Your task to perform on an android device: clear all cookies in the chrome app Image 0: 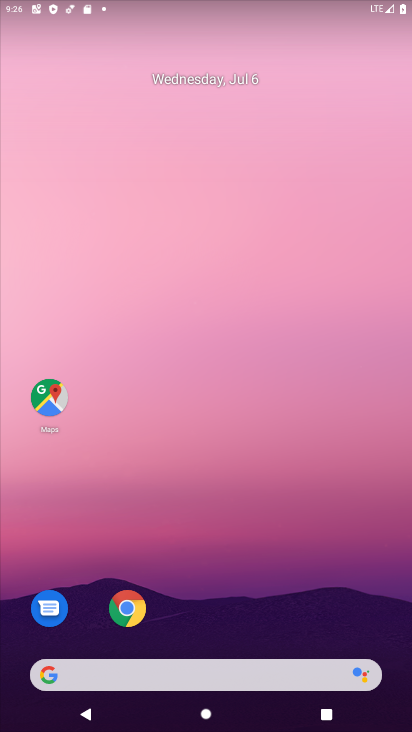
Step 0: click (126, 610)
Your task to perform on an android device: clear all cookies in the chrome app Image 1: 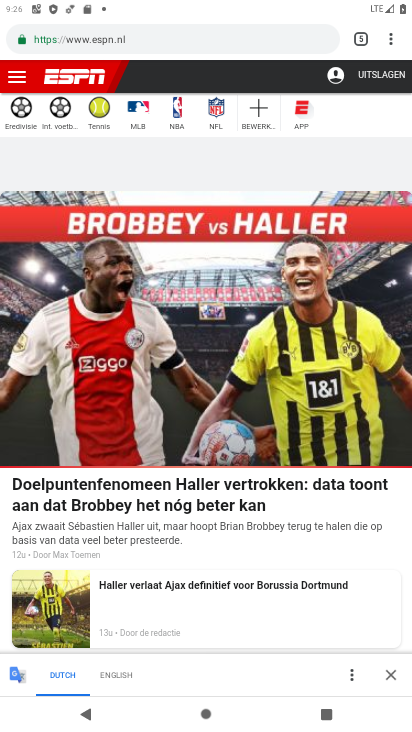
Step 1: click (392, 38)
Your task to perform on an android device: clear all cookies in the chrome app Image 2: 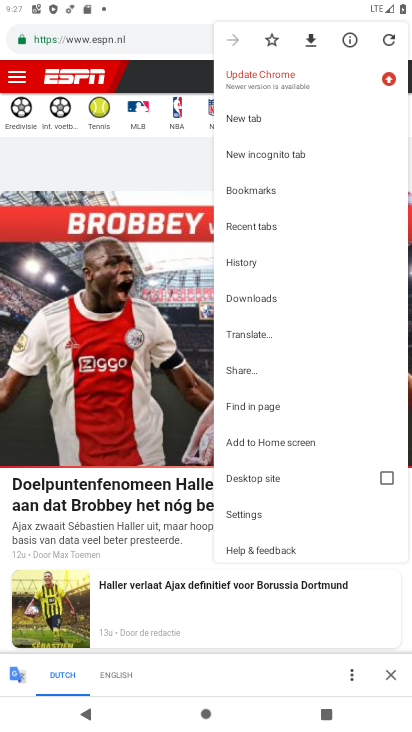
Step 2: click (245, 265)
Your task to perform on an android device: clear all cookies in the chrome app Image 3: 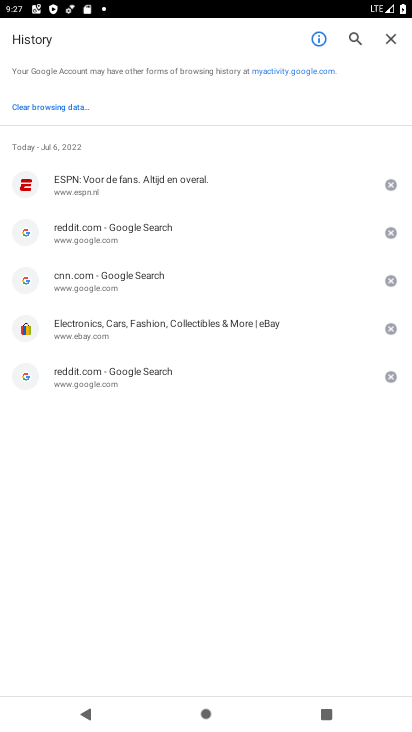
Step 3: click (37, 108)
Your task to perform on an android device: clear all cookies in the chrome app Image 4: 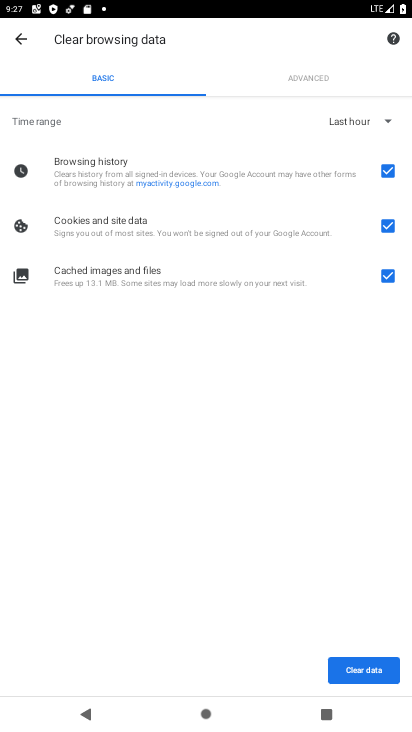
Step 4: click (393, 275)
Your task to perform on an android device: clear all cookies in the chrome app Image 5: 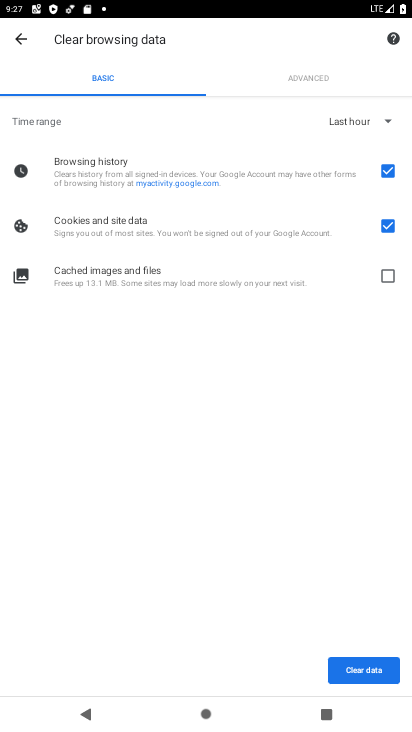
Step 5: click (384, 168)
Your task to perform on an android device: clear all cookies in the chrome app Image 6: 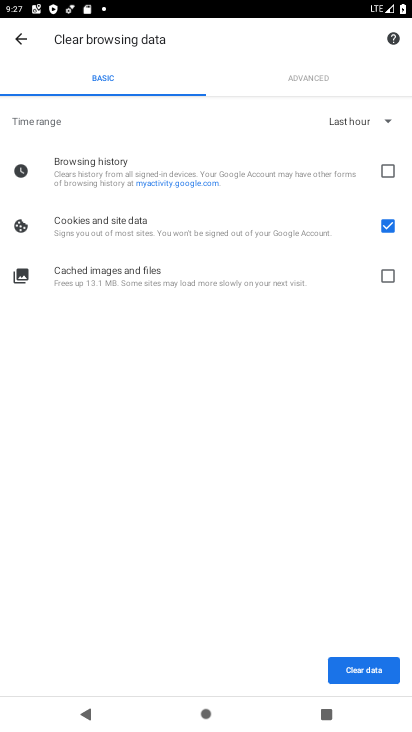
Step 6: click (361, 675)
Your task to perform on an android device: clear all cookies in the chrome app Image 7: 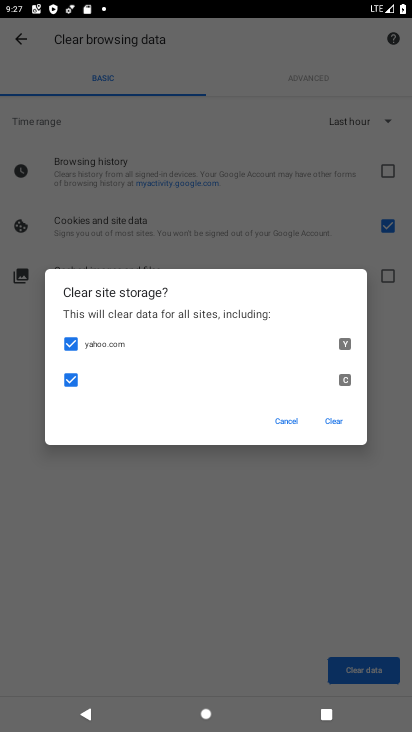
Step 7: click (323, 416)
Your task to perform on an android device: clear all cookies in the chrome app Image 8: 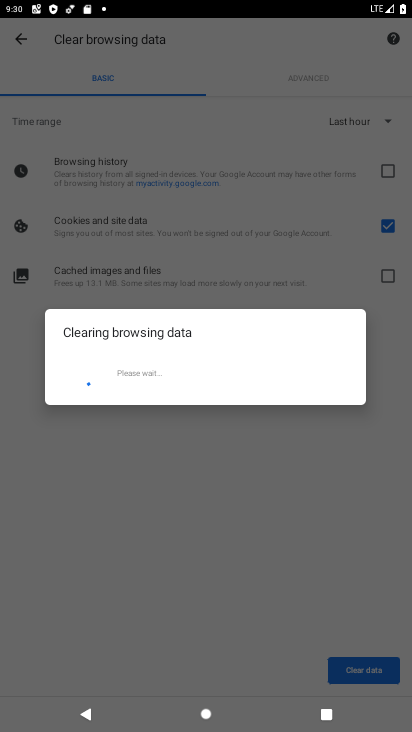
Step 8: task complete